Your task to perform on an android device: Open Wikipedia Image 0: 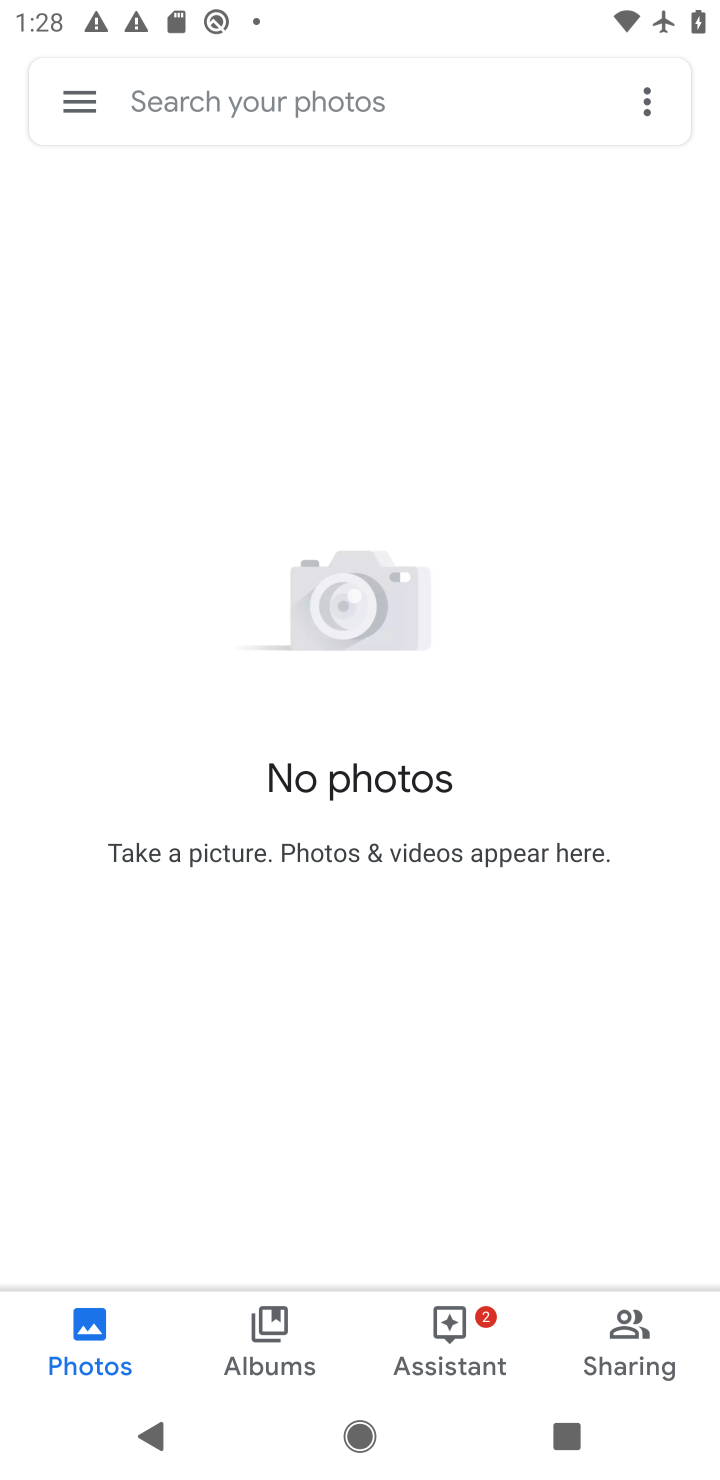
Step 0: press home button
Your task to perform on an android device: Open Wikipedia Image 1: 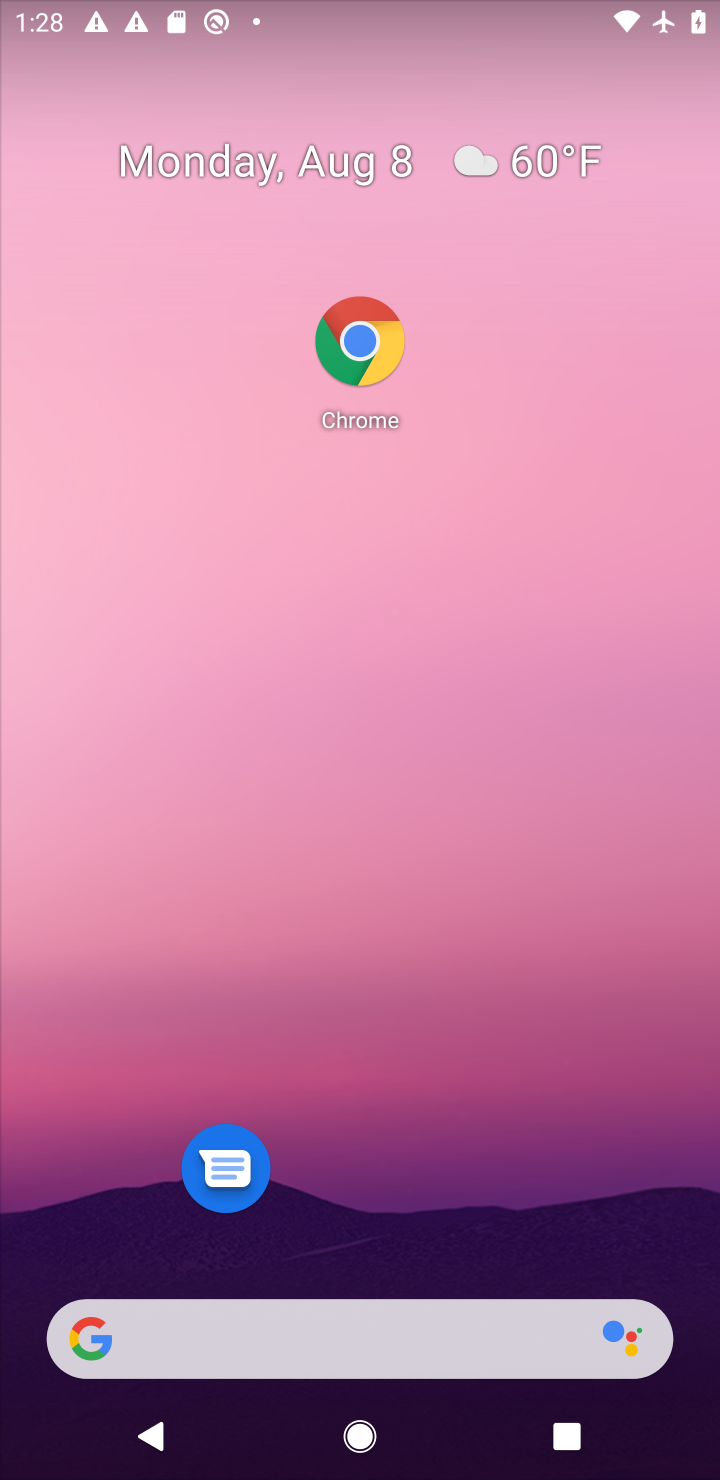
Step 1: drag from (506, 1218) to (7, 36)
Your task to perform on an android device: Open Wikipedia Image 2: 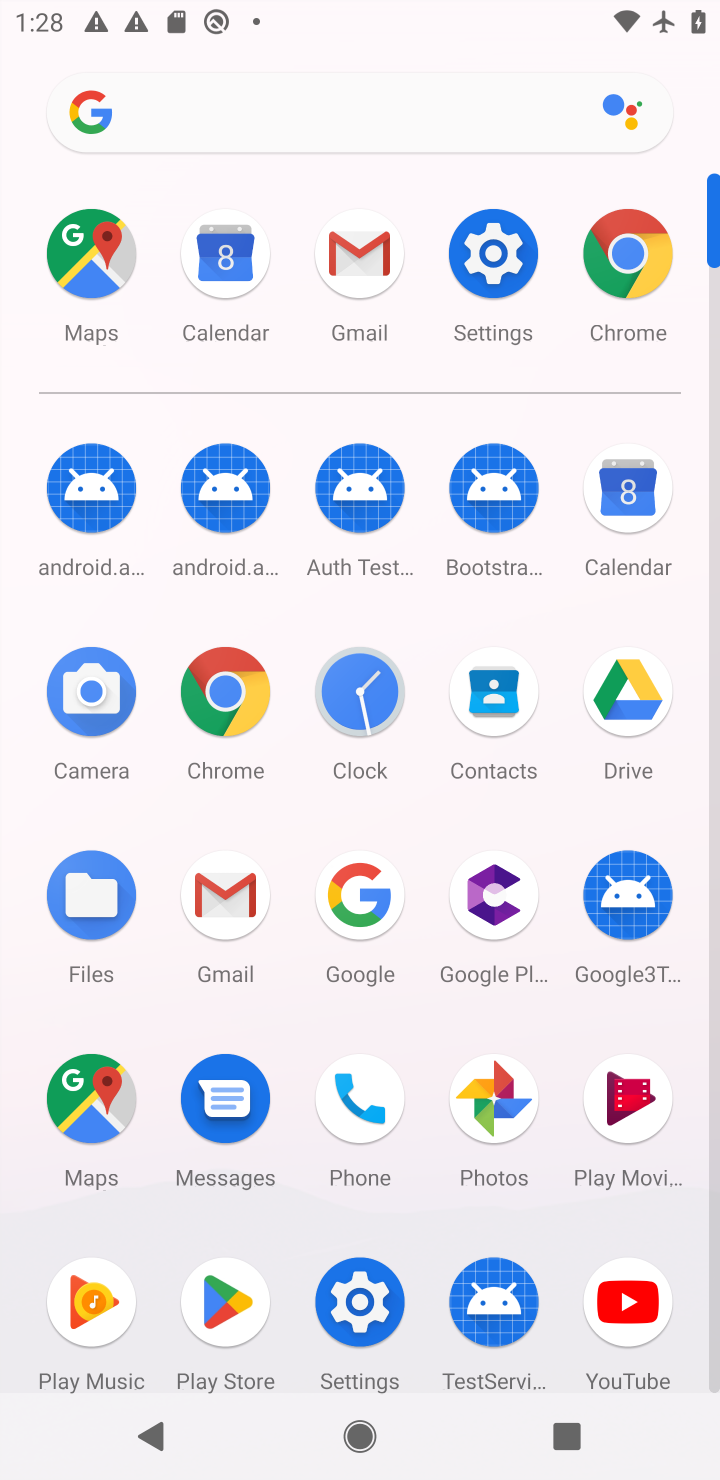
Step 2: click (481, 319)
Your task to perform on an android device: Open Wikipedia Image 3: 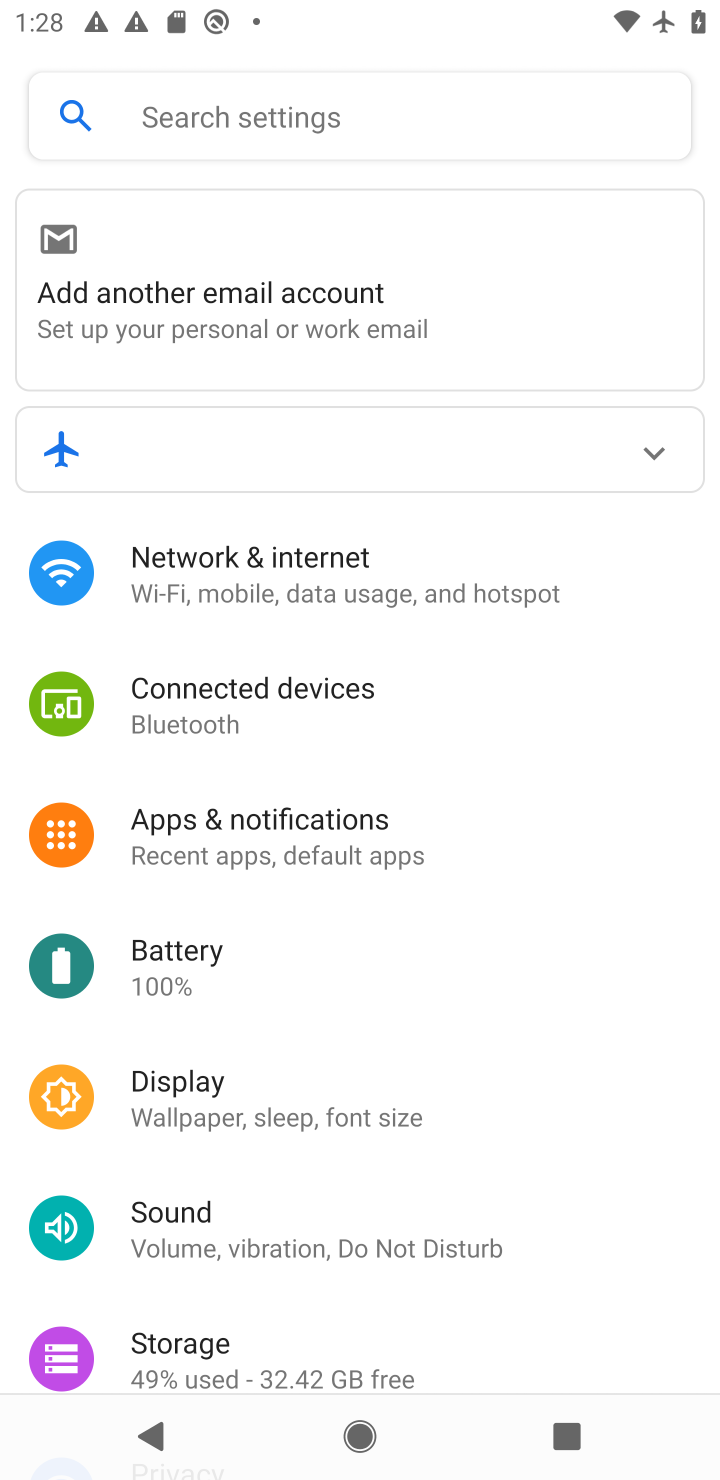
Step 3: press home button
Your task to perform on an android device: Open Wikipedia Image 4: 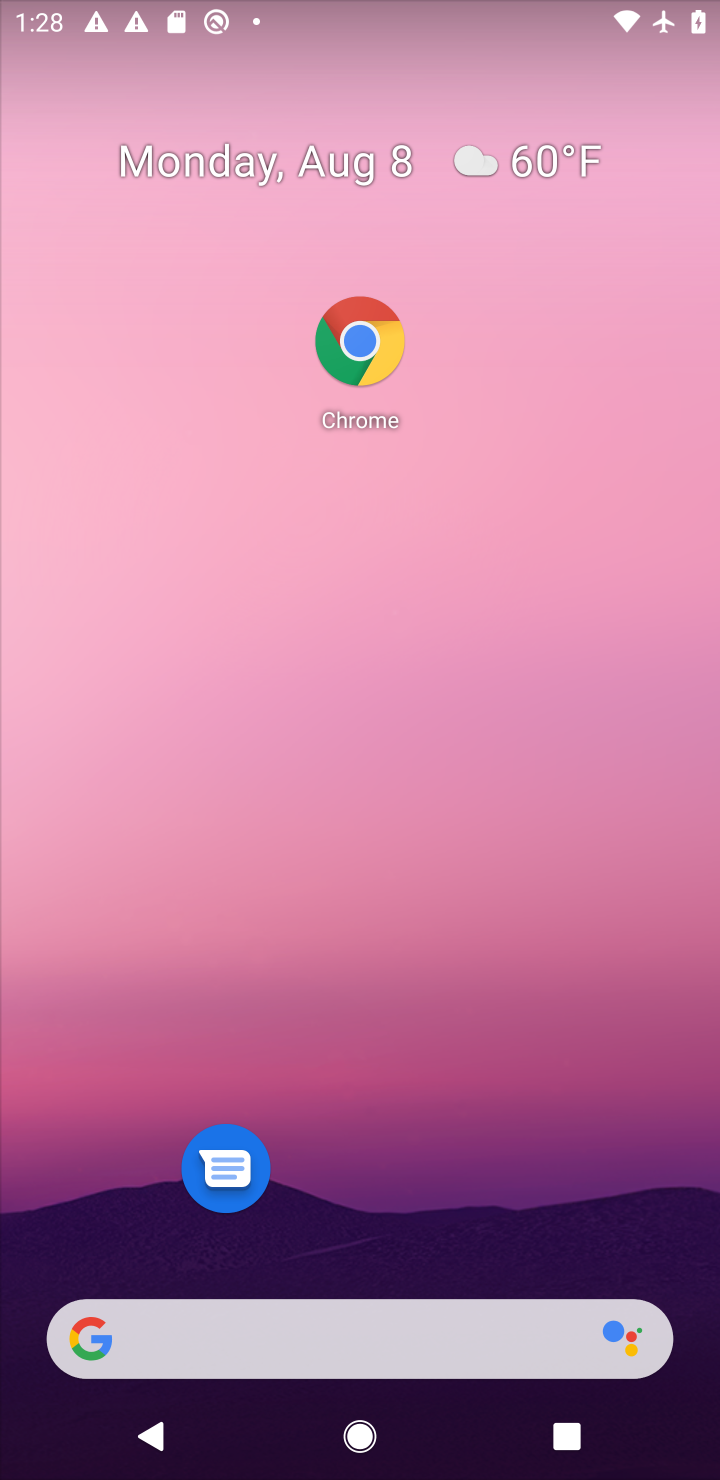
Step 4: drag from (449, 1262) to (448, 103)
Your task to perform on an android device: Open Wikipedia Image 5: 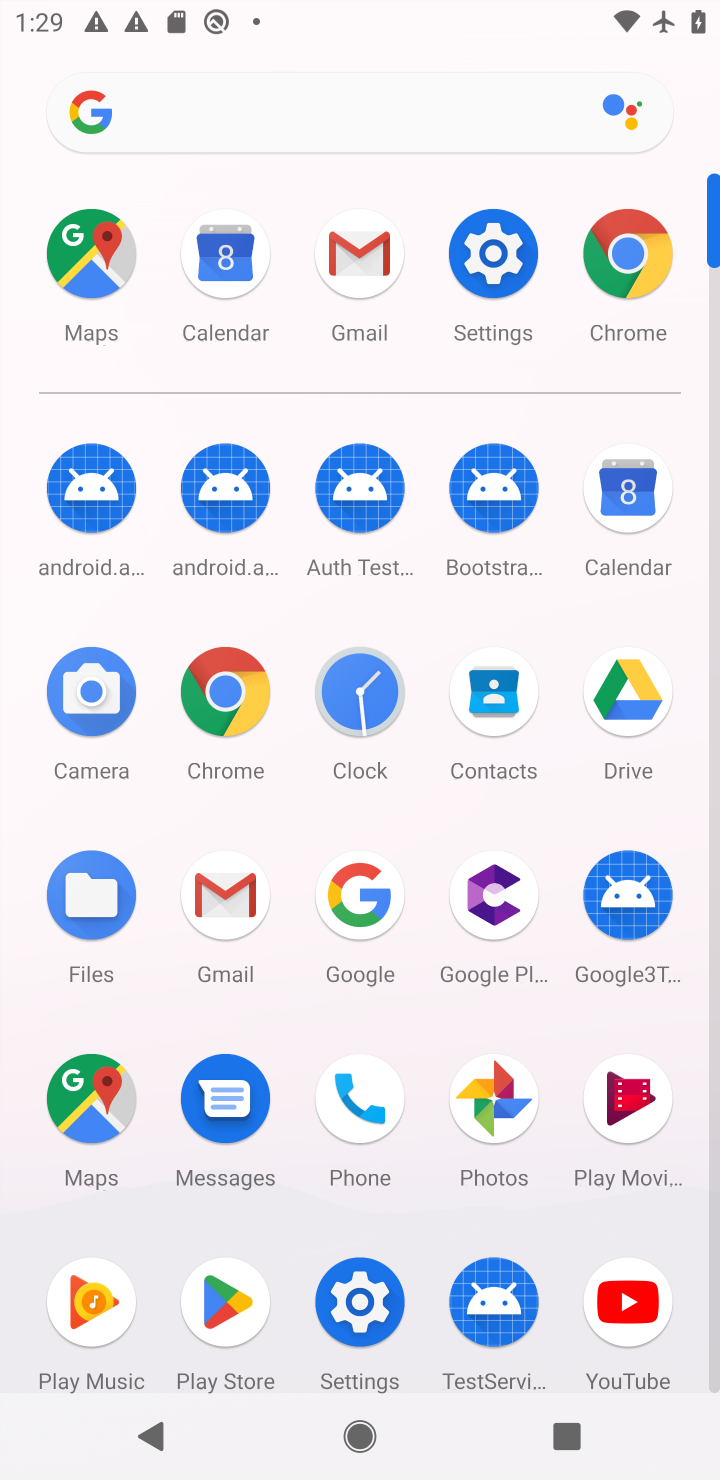
Step 5: click (293, 113)
Your task to perform on an android device: Open Wikipedia Image 6: 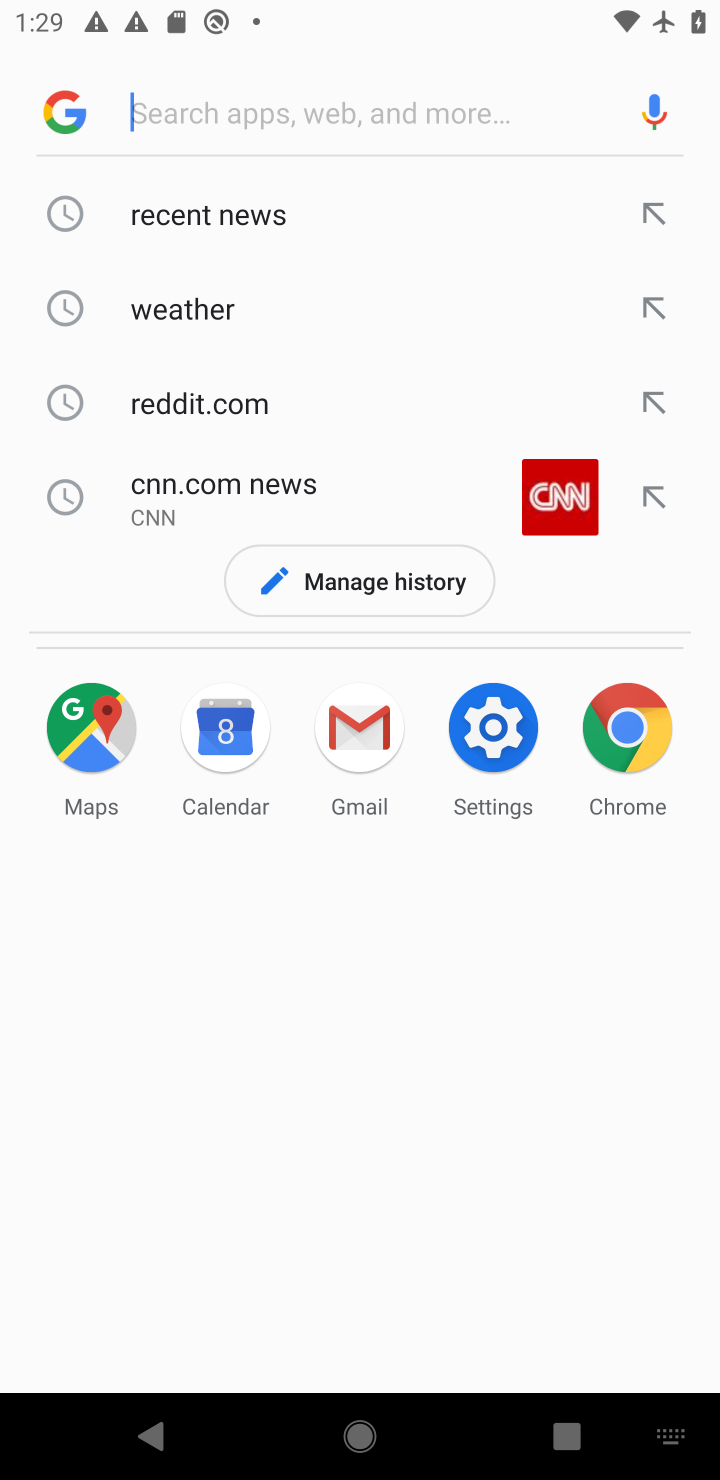
Step 6: type "wikipedia"
Your task to perform on an android device: Open Wikipedia Image 7: 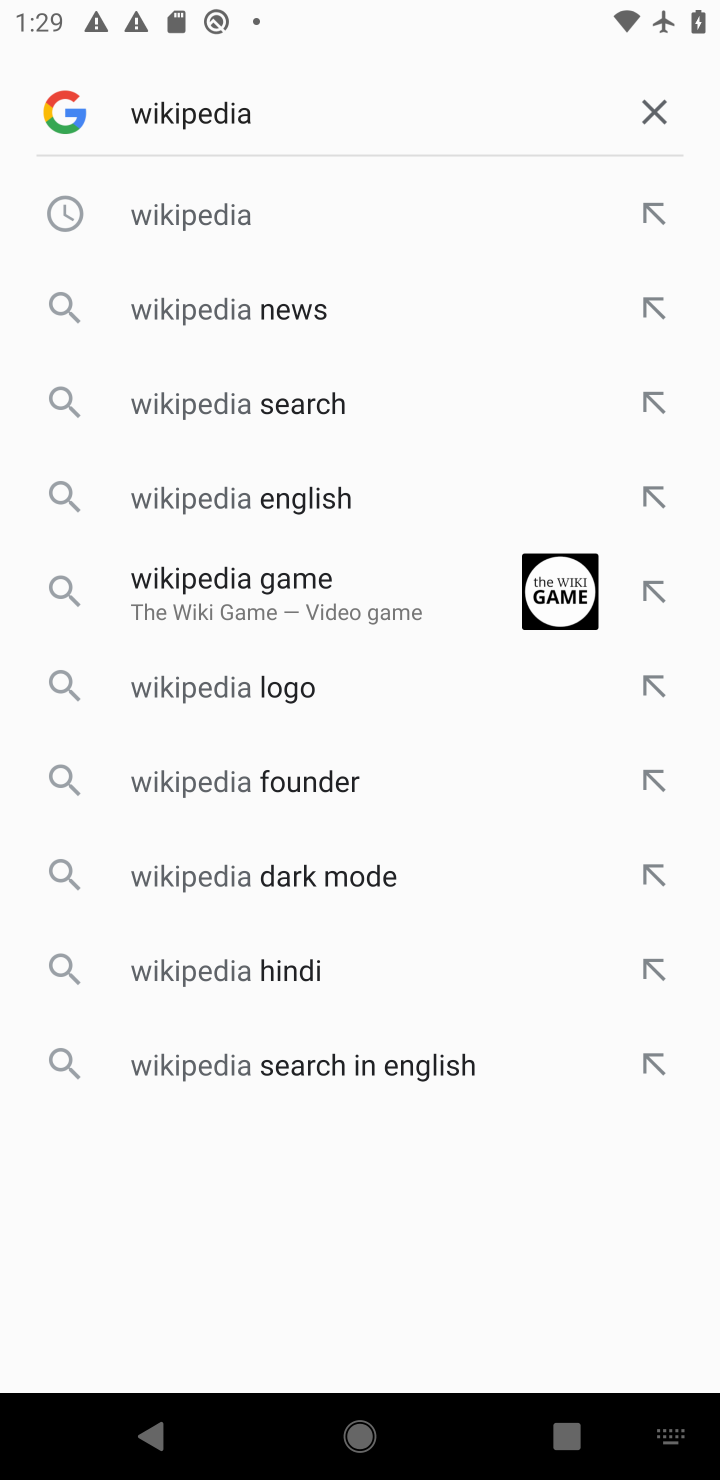
Step 7: click (512, 221)
Your task to perform on an android device: Open Wikipedia Image 8: 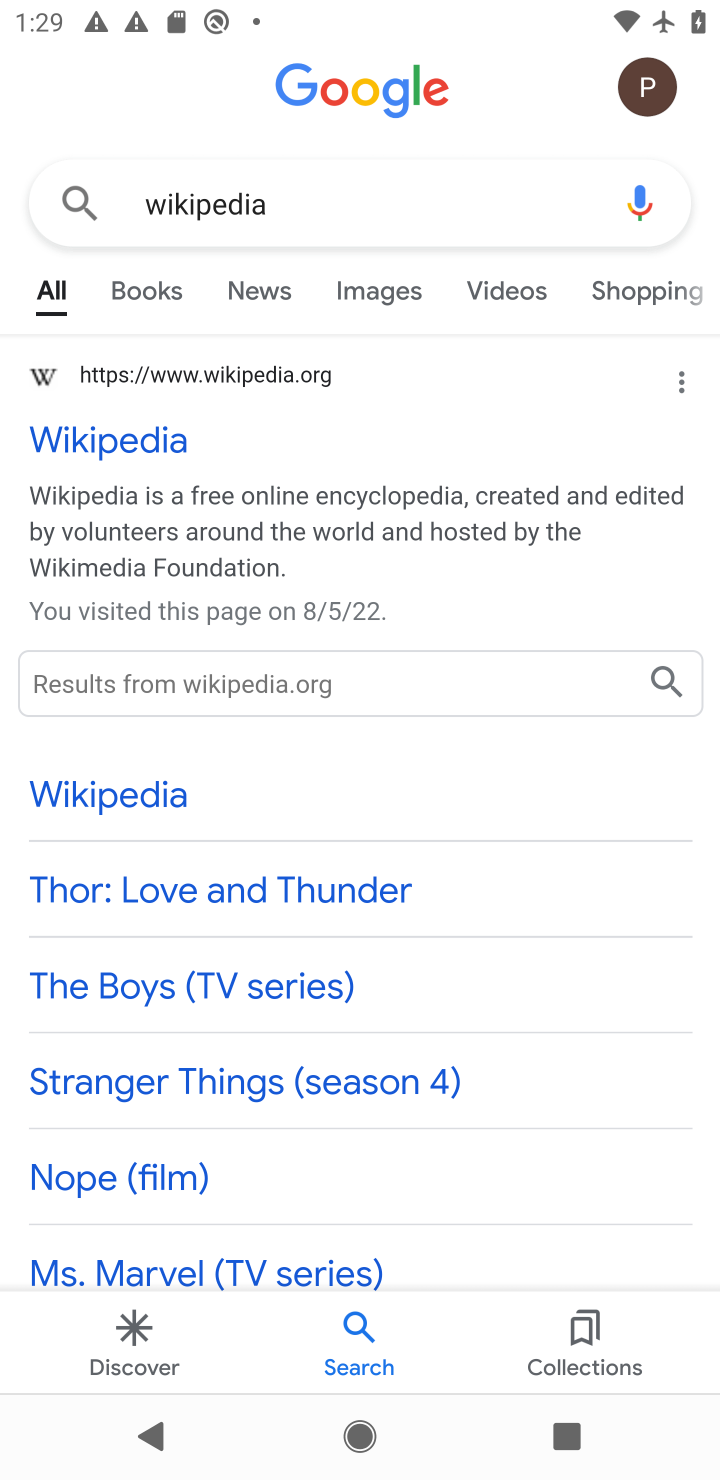
Step 8: click (183, 401)
Your task to perform on an android device: Open Wikipedia Image 9: 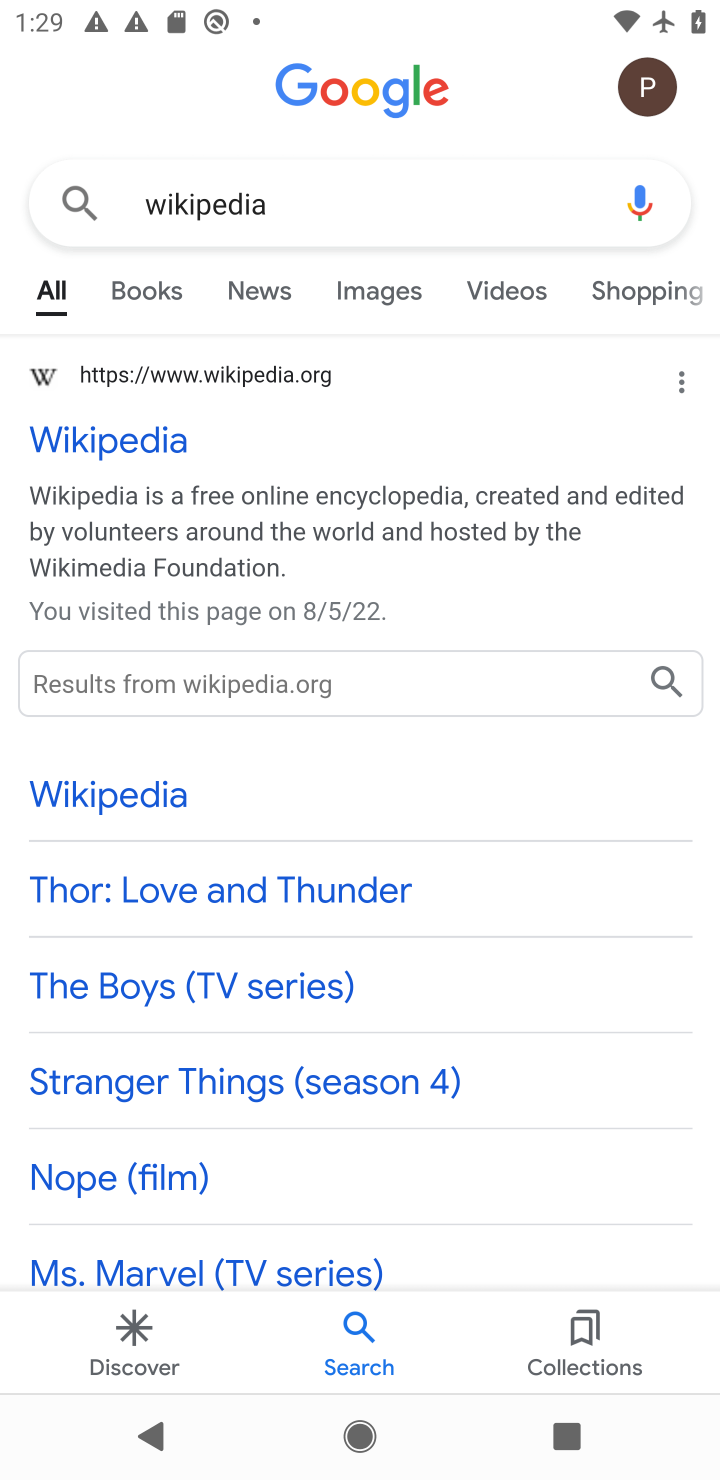
Step 9: task complete